Your task to perform on an android device: turn off javascript in the chrome app Image 0: 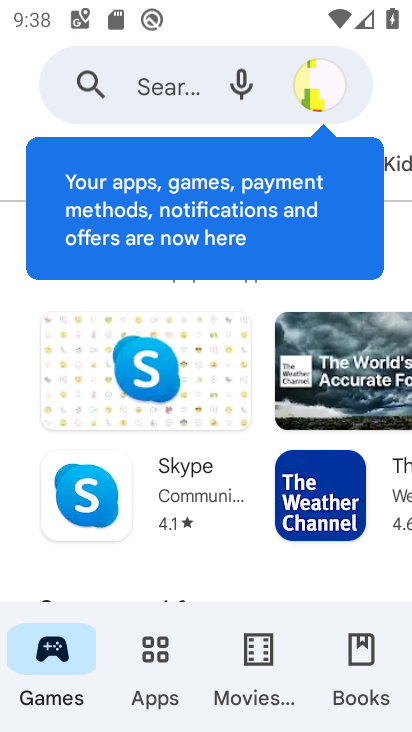
Step 0: press home button
Your task to perform on an android device: turn off javascript in the chrome app Image 1: 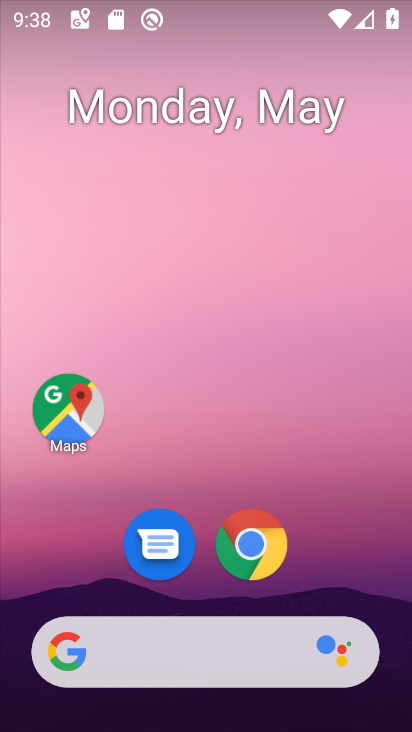
Step 1: drag from (374, 570) to (330, 163)
Your task to perform on an android device: turn off javascript in the chrome app Image 2: 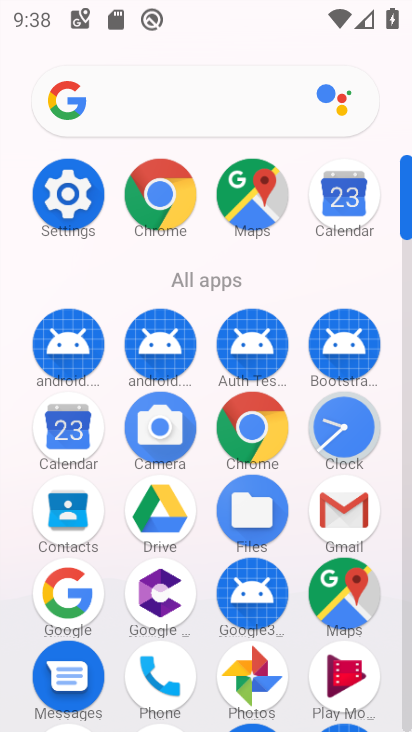
Step 2: click (274, 422)
Your task to perform on an android device: turn off javascript in the chrome app Image 3: 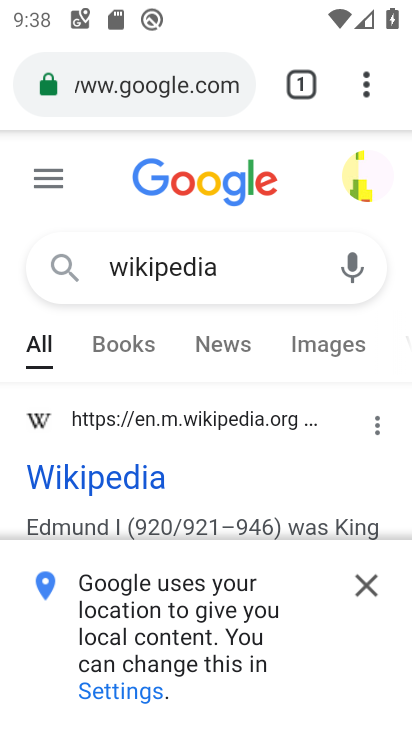
Step 3: click (370, 588)
Your task to perform on an android device: turn off javascript in the chrome app Image 4: 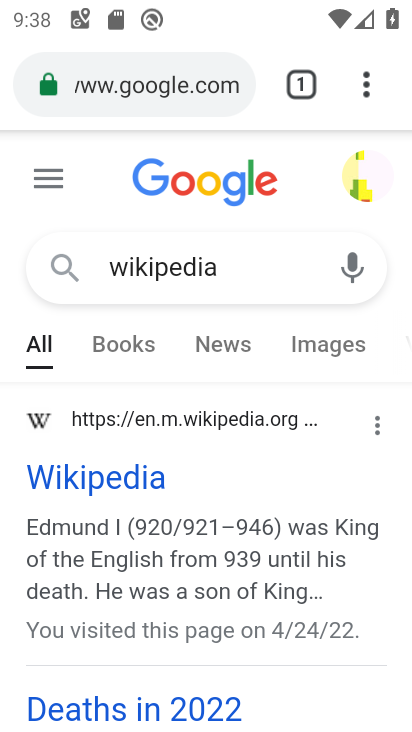
Step 4: drag from (372, 102) to (231, 587)
Your task to perform on an android device: turn off javascript in the chrome app Image 5: 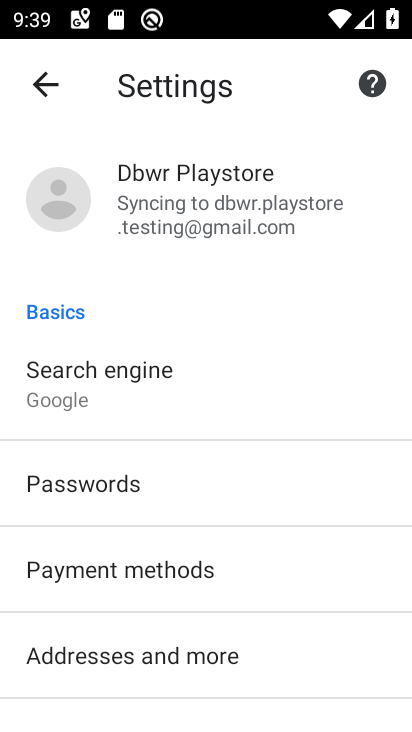
Step 5: drag from (218, 662) to (235, 329)
Your task to perform on an android device: turn off javascript in the chrome app Image 6: 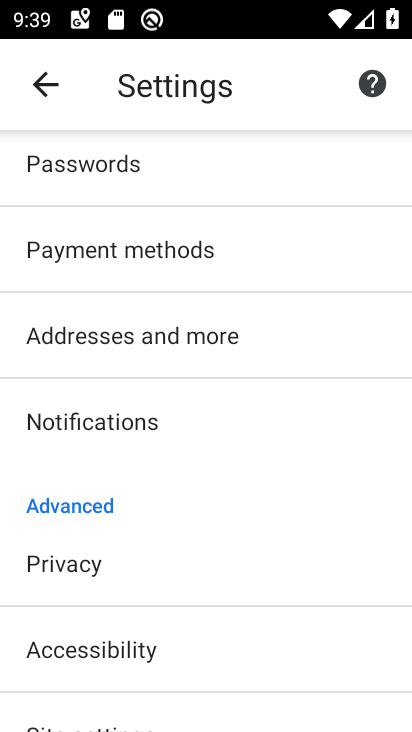
Step 6: drag from (198, 583) to (218, 342)
Your task to perform on an android device: turn off javascript in the chrome app Image 7: 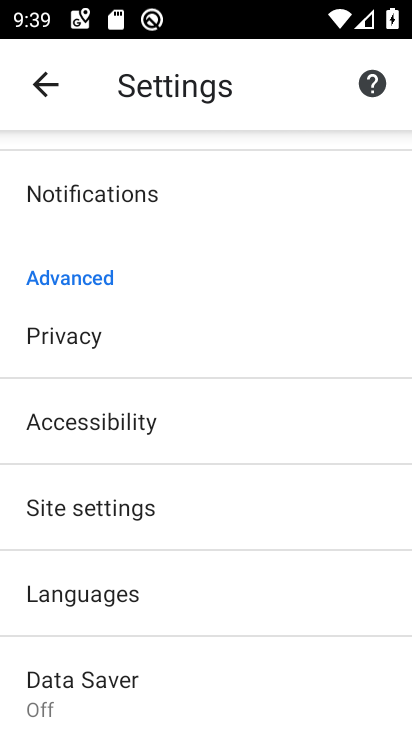
Step 7: drag from (209, 644) to (244, 363)
Your task to perform on an android device: turn off javascript in the chrome app Image 8: 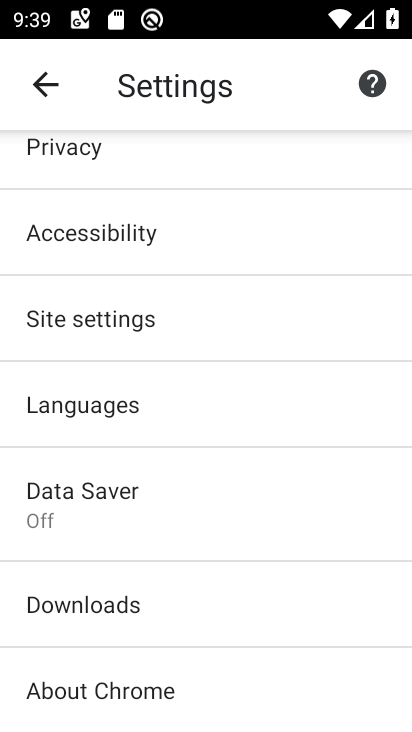
Step 8: click (116, 318)
Your task to perform on an android device: turn off javascript in the chrome app Image 9: 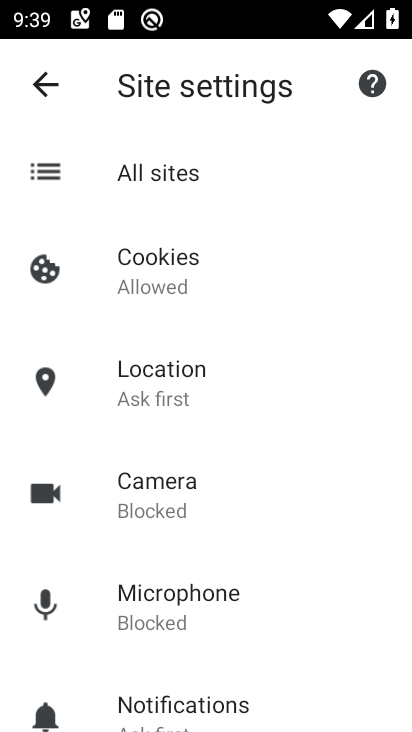
Step 9: drag from (273, 651) to (264, 384)
Your task to perform on an android device: turn off javascript in the chrome app Image 10: 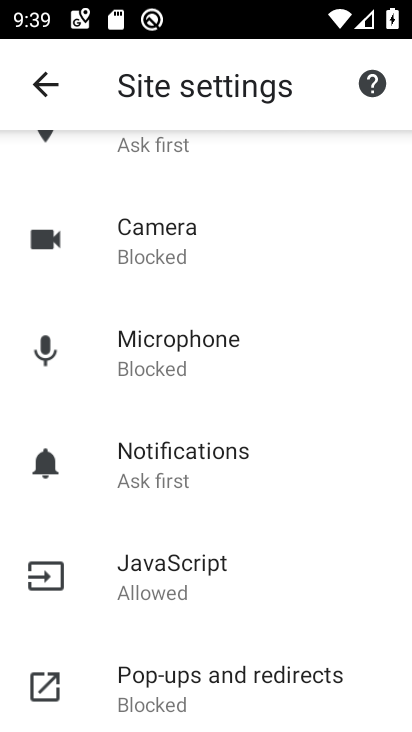
Step 10: click (226, 584)
Your task to perform on an android device: turn off javascript in the chrome app Image 11: 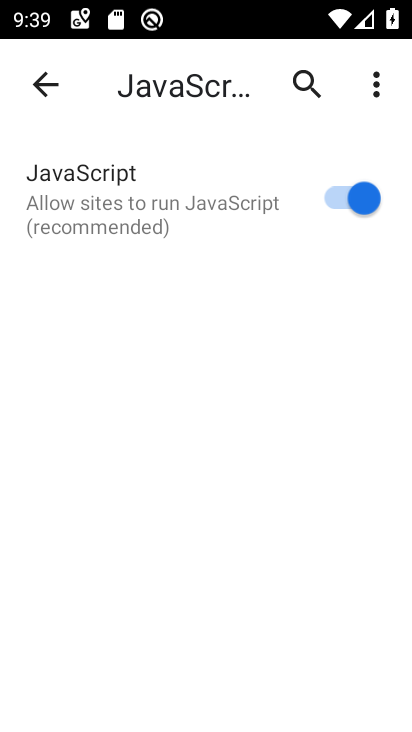
Step 11: click (333, 201)
Your task to perform on an android device: turn off javascript in the chrome app Image 12: 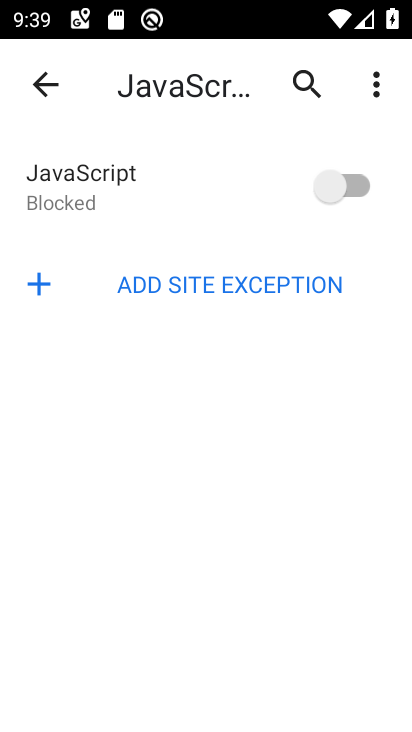
Step 12: task complete